Your task to perform on an android device: set default search engine in the chrome app Image 0: 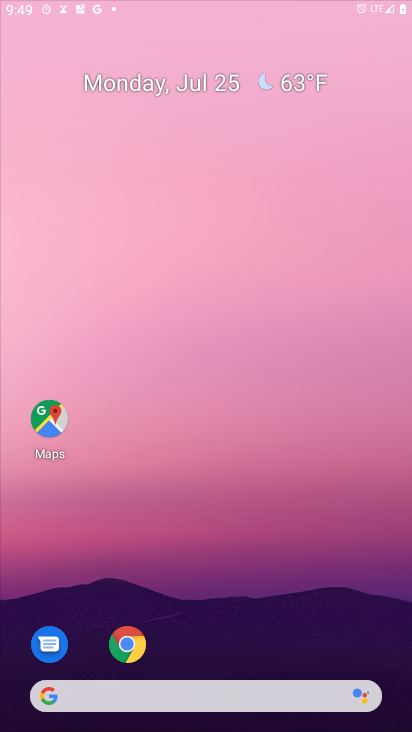
Step 0: click (221, 175)
Your task to perform on an android device: set default search engine in the chrome app Image 1: 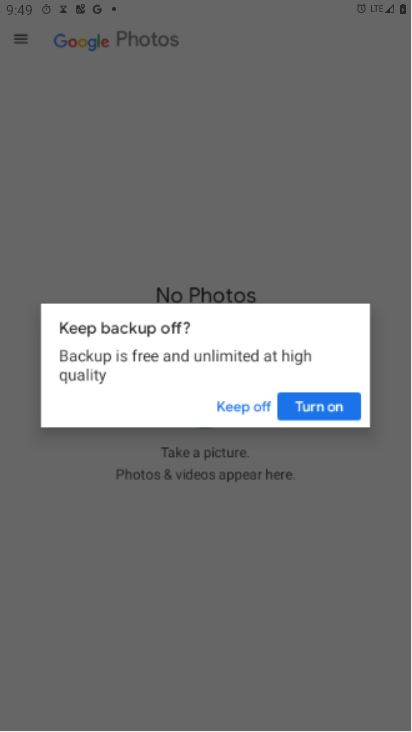
Step 1: drag from (211, 549) to (211, 127)
Your task to perform on an android device: set default search engine in the chrome app Image 2: 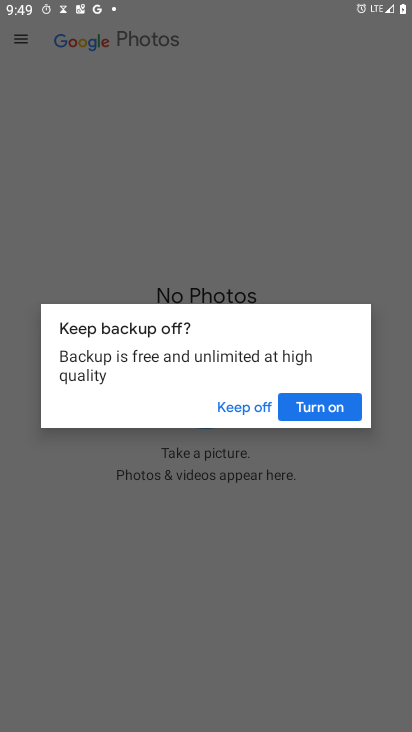
Step 2: click (235, 411)
Your task to perform on an android device: set default search engine in the chrome app Image 3: 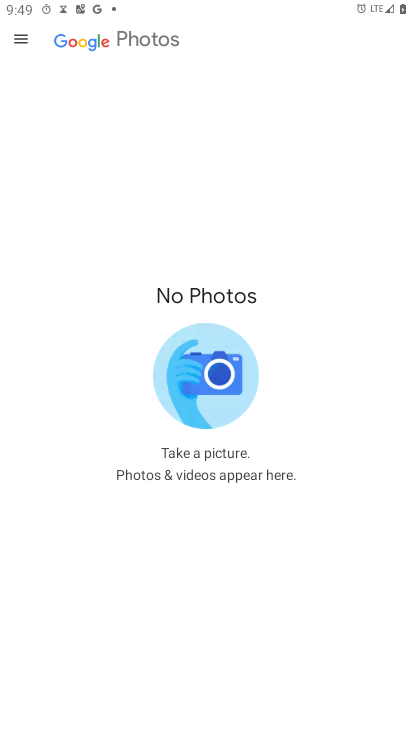
Step 3: press back button
Your task to perform on an android device: set default search engine in the chrome app Image 4: 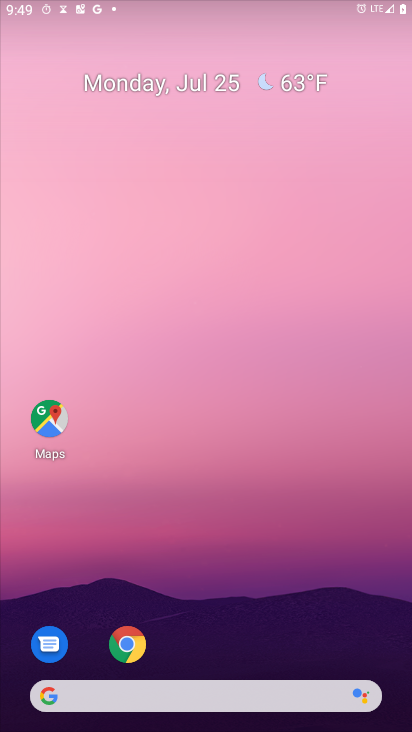
Step 4: drag from (280, 699) to (234, 223)
Your task to perform on an android device: set default search engine in the chrome app Image 5: 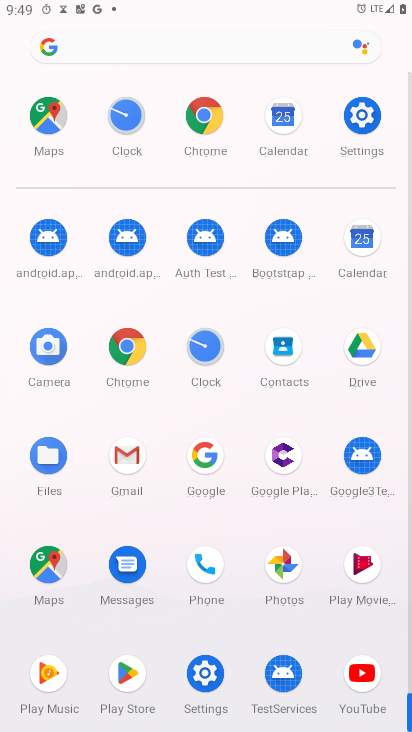
Step 5: click (127, 347)
Your task to perform on an android device: set default search engine in the chrome app Image 6: 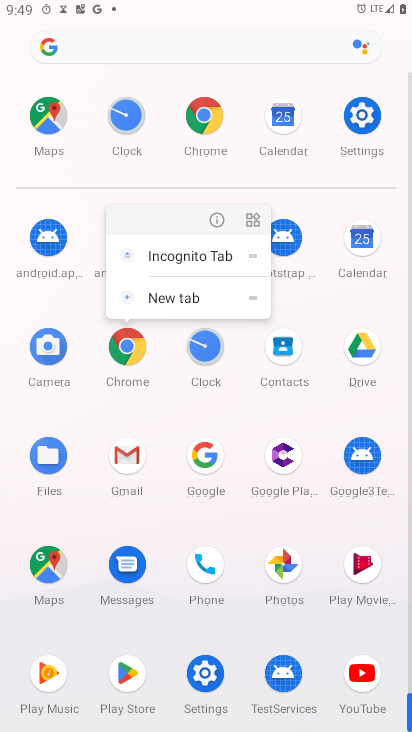
Step 6: click (132, 347)
Your task to perform on an android device: set default search engine in the chrome app Image 7: 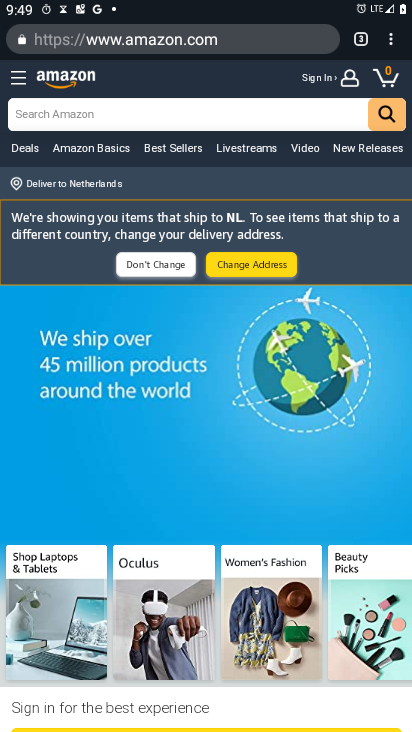
Step 7: drag from (390, 38) to (254, 467)
Your task to perform on an android device: set default search engine in the chrome app Image 8: 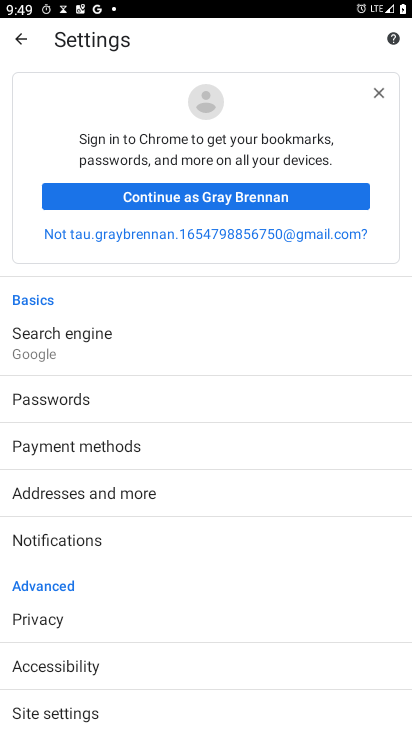
Step 8: click (35, 341)
Your task to perform on an android device: set default search engine in the chrome app Image 9: 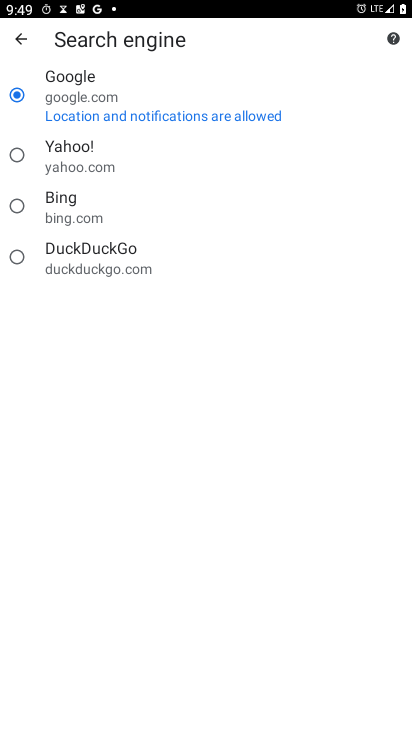
Step 9: click (10, 153)
Your task to perform on an android device: set default search engine in the chrome app Image 10: 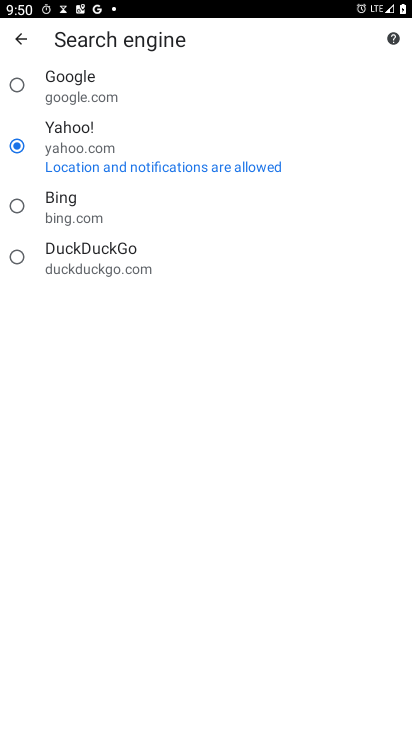
Step 10: task complete